Your task to perform on an android device: Show me popular games on the Play Store Image 0: 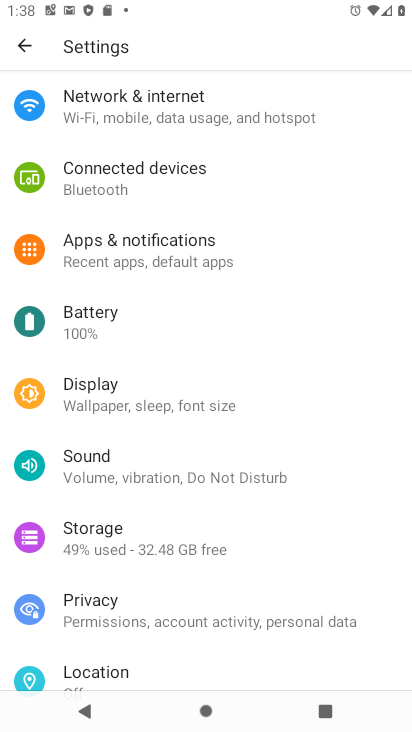
Step 0: press home button
Your task to perform on an android device: Show me popular games on the Play Store Image 1: 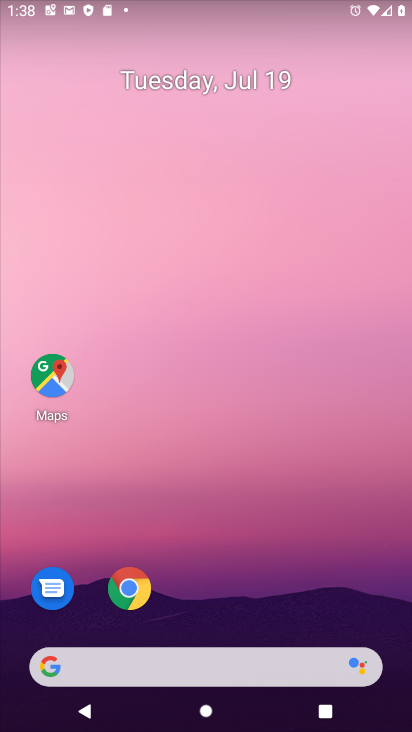
Step 1: drag from (285, 609) to (178, 95)
Your task to perform on an android device: Show me popular games on the Play Store Image 2: 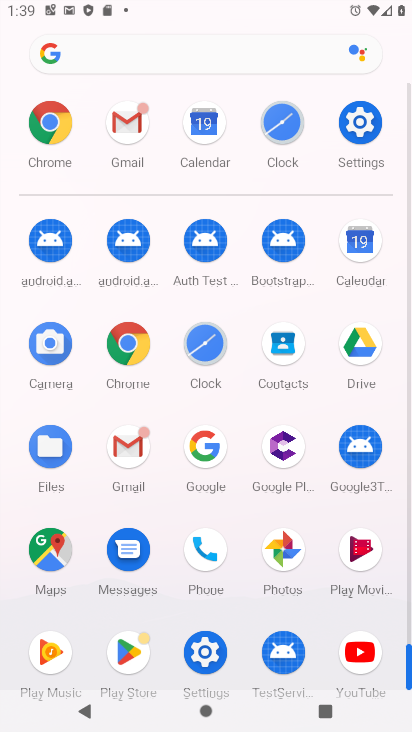
Step 2: click (129, 652)
Your task to perform on an android device: Show me popular games on the Play Store Image 3: 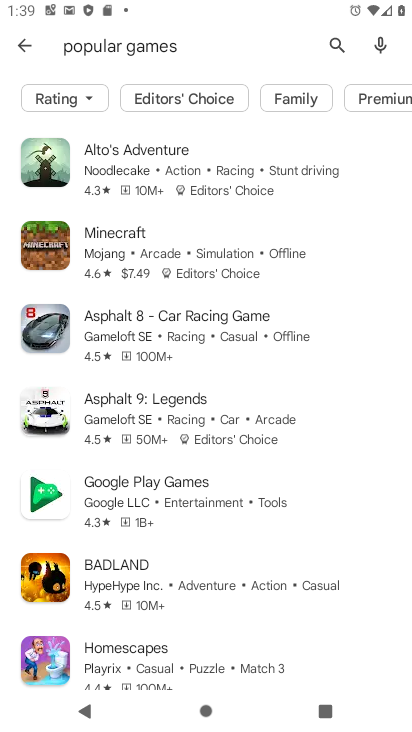
Step 3: task complete